Your task to perform on an android device: When is my next appointment? Image 0: 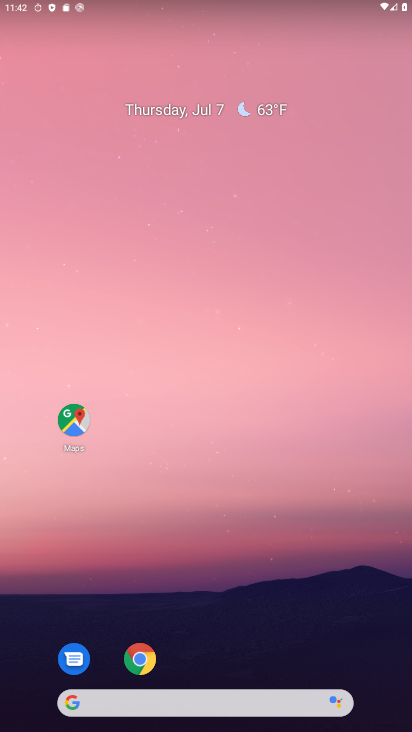
Step 0: drag from (259, 632) to (221, 0)
Your task to perform on an android device: When is my next appointment? Image 1: 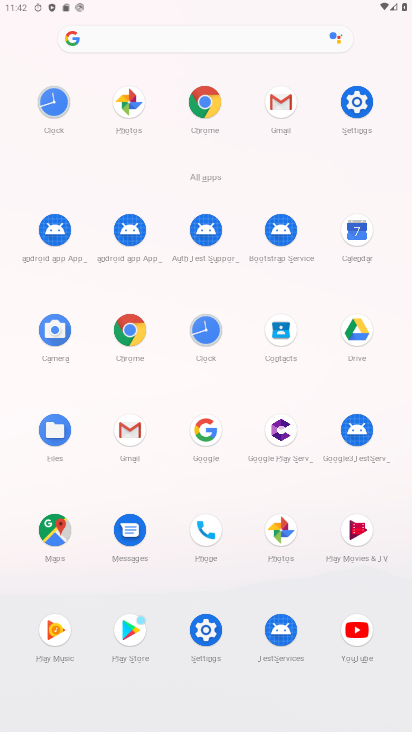
Step 1: click (358, 241)
Your task to perform on an android device: When is my next appointment? Image 2: 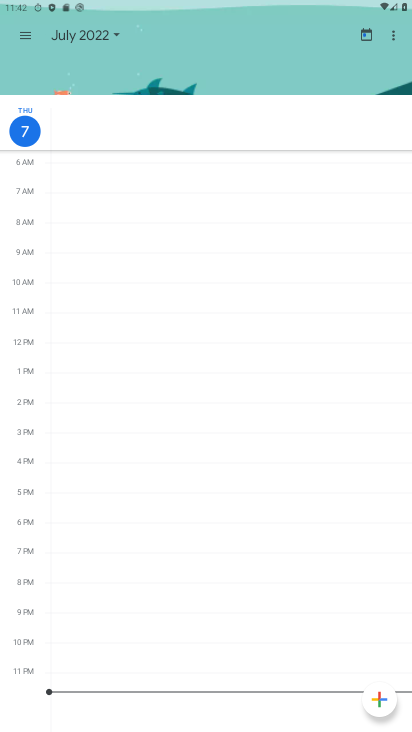
Step 2: click (20, 36)
Your task to perform on an android device: When is my next appointment? Image 3: 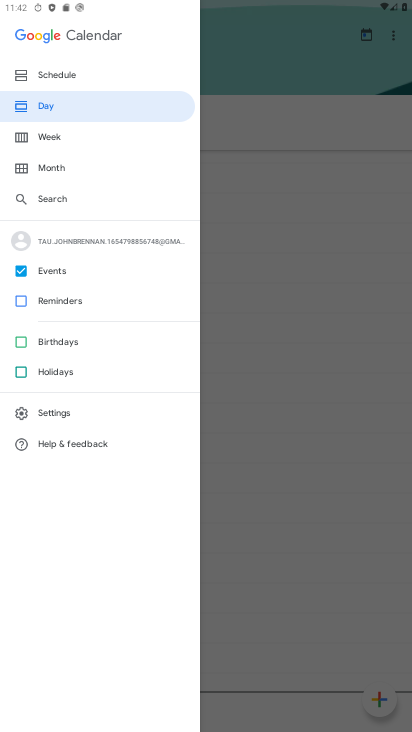
Step 3: click (82, 74)
Your task to perform on an android device: When is my next appointment? Image 4: 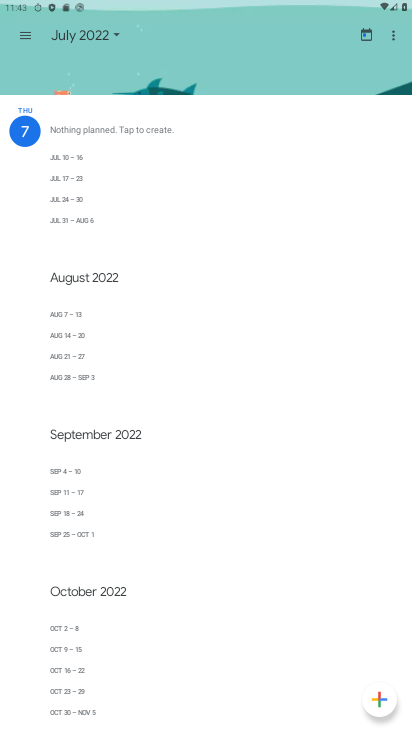
Step 4: task complete